Your task to perform on an android device: delete the emails in spam in the gmail app Image 0: 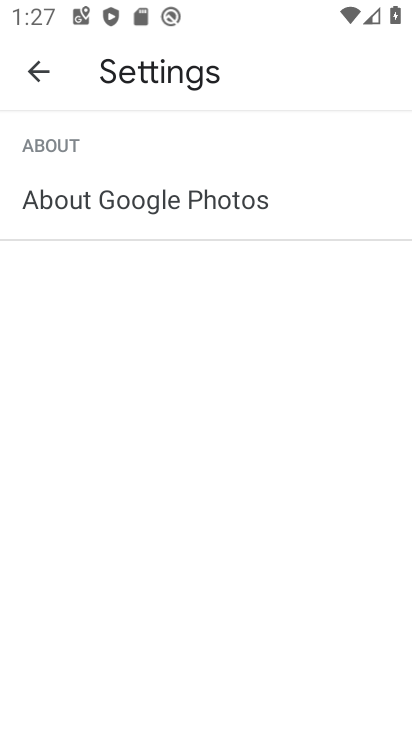
Step 0: drag from (195, 553) to (394, 477)
Your task to perform on an android device: delete the emails in spam in the gmail app Image 1: 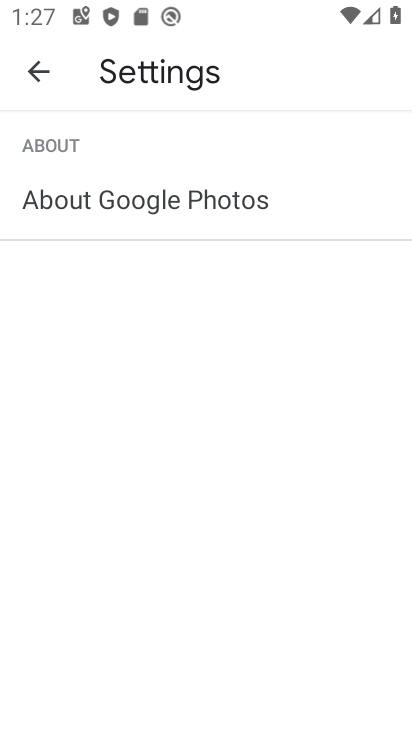
Step 1: press home button
Your task to perform on an android device: delete the emails in spam in the gmail app Image 2: 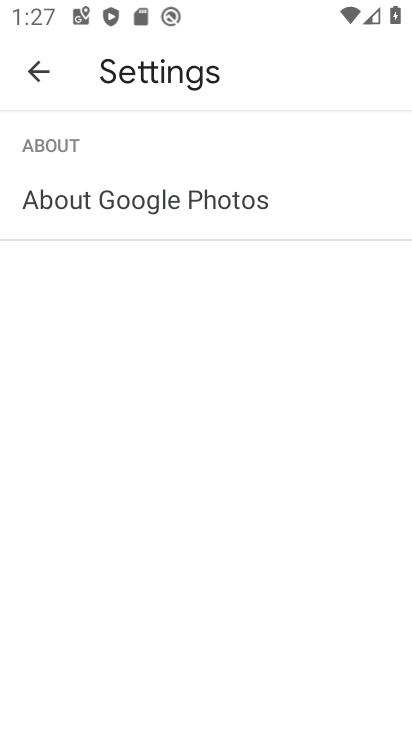
Step 2: drag from (394, 477) to (376, 325)
Your task to perform on an android device: delete the emails in spam in the gmail app Image 3: 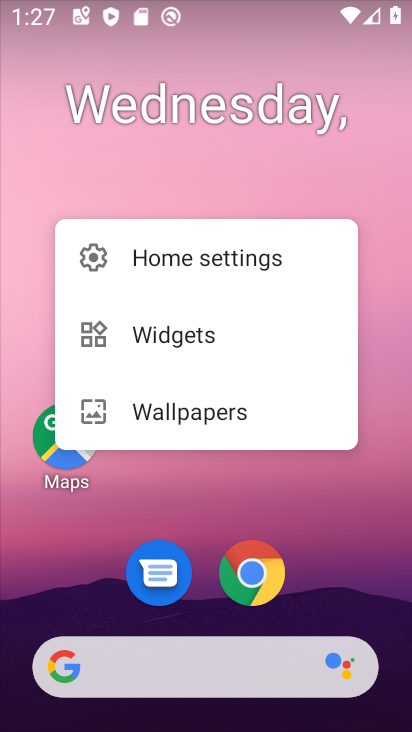
Step 3: click (214, 485)
Your task to perform on an android device: delete the emails in spam in the gmail app Image 4: 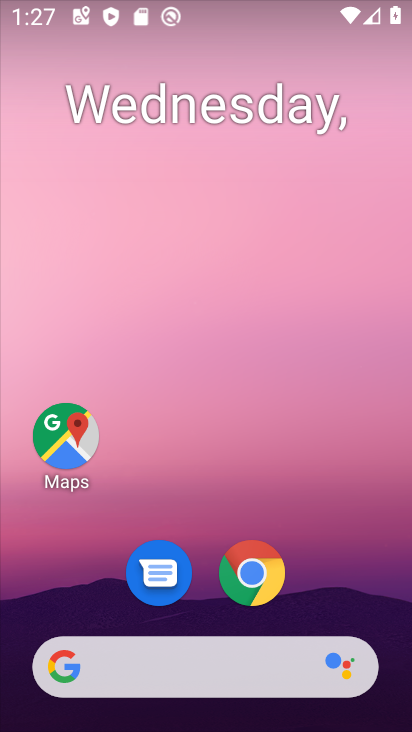
Step 4: drag from (208, 599) to (248, 45)
Your task to perform on an android device: delete the emails in spam in the gmail app Image 5: 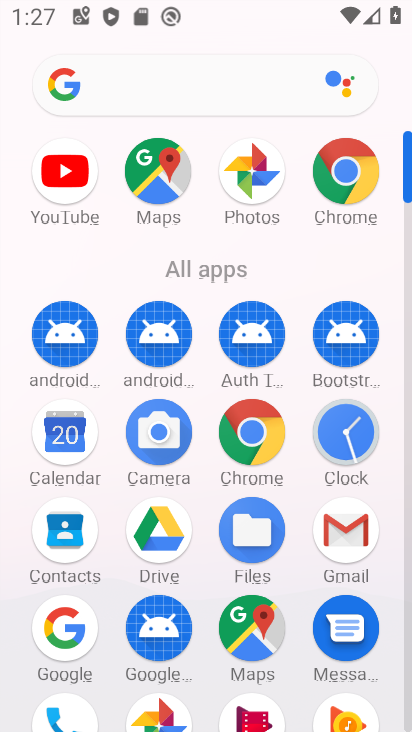
Step 5: click (342, 529)
Your task to perform on an android device: delete the emails in spam in the gmail app Image 6: 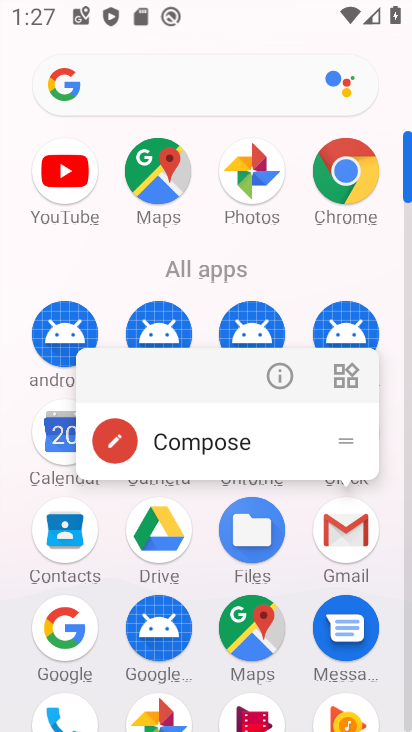
Step 6: click (338, 537)
Your task to perform on an android device: delete the emails in spam in the gmail app Image 7: 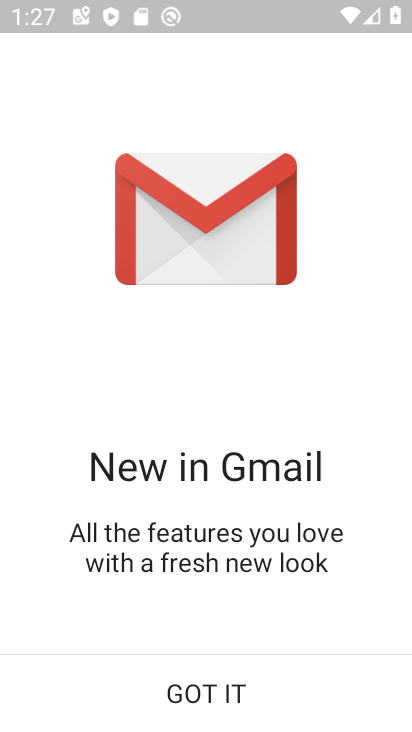
Step 7: click (217, 690)
Your task to perform on an android device: delete the emails in spam in the gmail app Image 8: 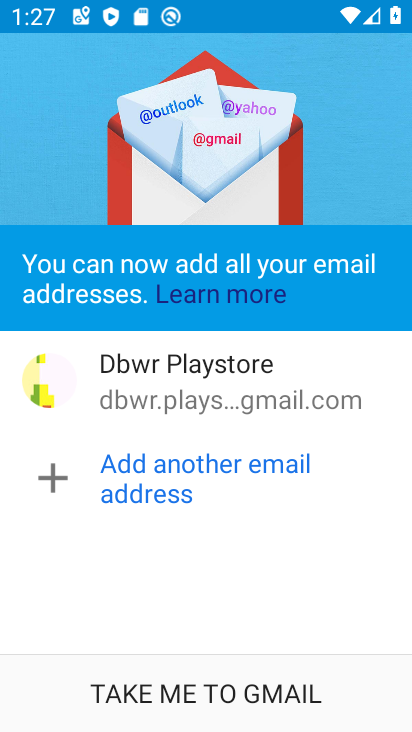
Step 8: click (164, 386)
Your task to perform on an android device: delete the emails in spam in the gmail app Image 9: 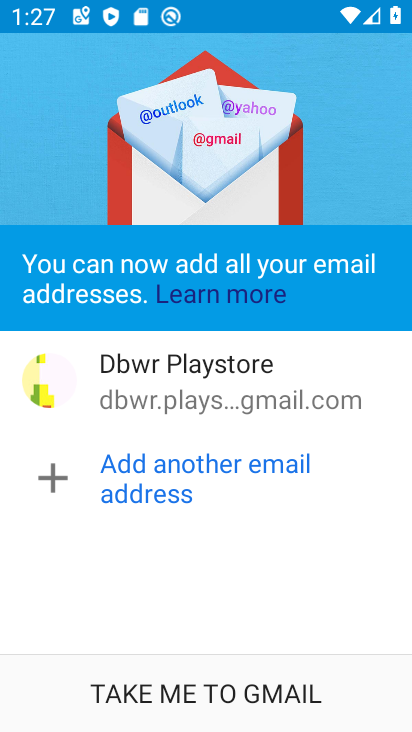
Step 9: click (208, 706)
Your task to perform on an android device: delete the emails in spam in the gmail app Image 10: 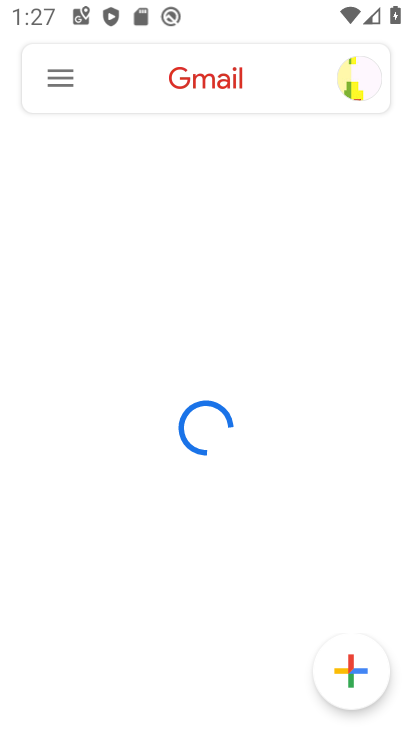
Step 10: click (66, 81)
Your task to perform on an android device: delete the emails in spam in the gmail app Image 11: 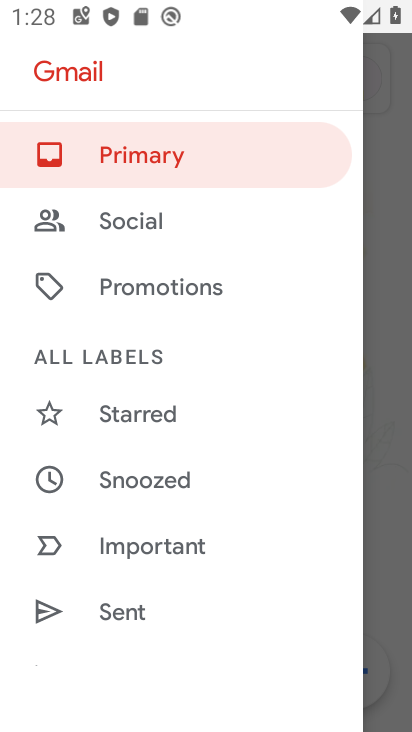
Step 11: drag from (167, 559) to (153, 289)
Your task to perform on an android device: delete the emails in spam in the gmail app Image 12: 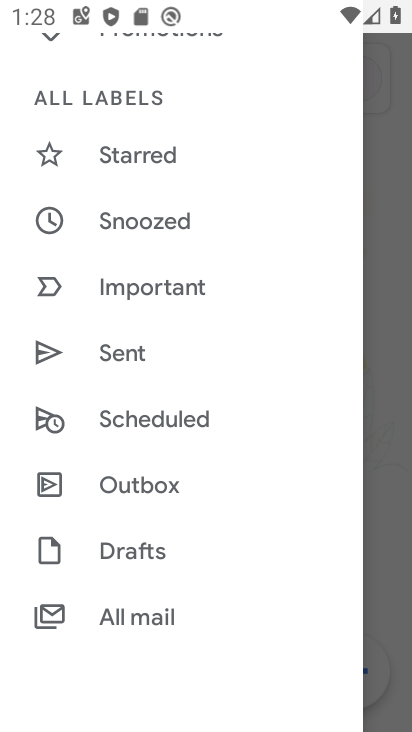
Step 12: drag from (155, 228) to (233, 0)
Your task to perform on an android device: delete the emails in spam in the gmail app Image 13: 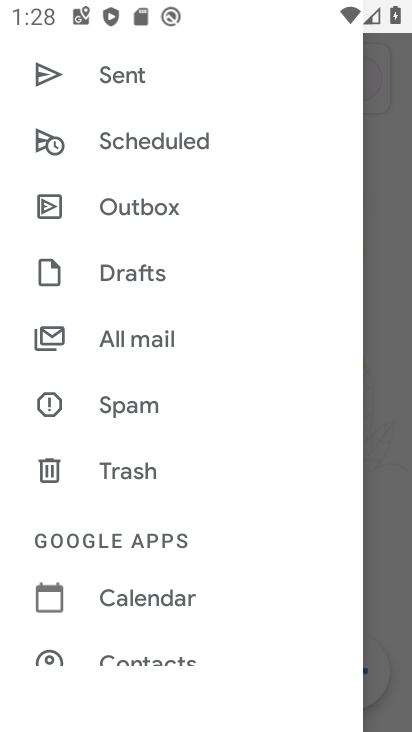
Step 13: click (119, 414)
Your task to perform on an android device: delete the emails in spam in the gmail app Image 14: 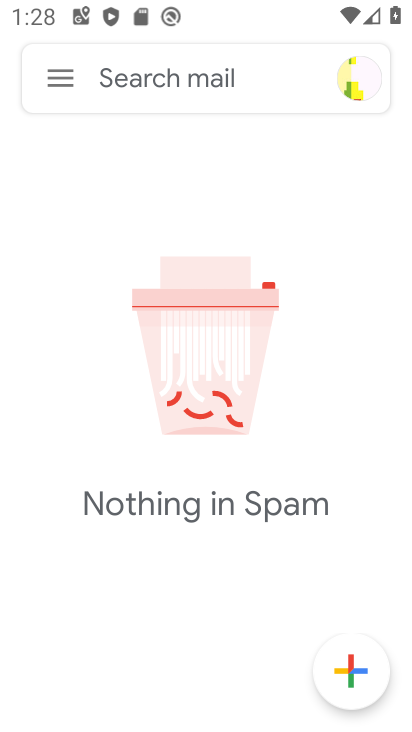
Step 14: task complete